Your task to perform on an android device: Show me productivity apps on the Play Store Image 0: 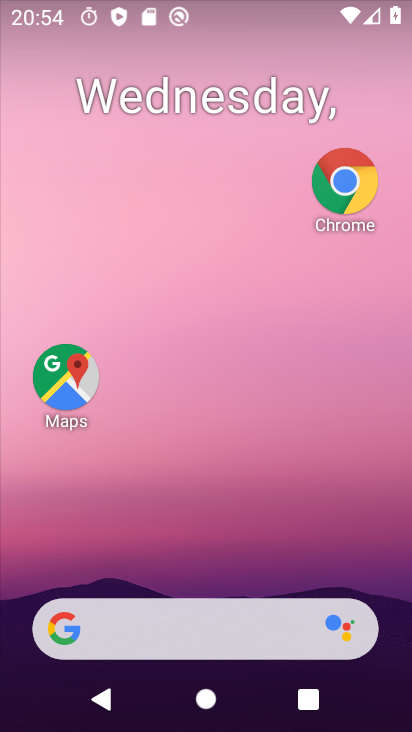
Step 0: drag from (208, 664) to (270, 162)
Your task to perform on an android device: Show me productivity apps on the Play Store Image 1: 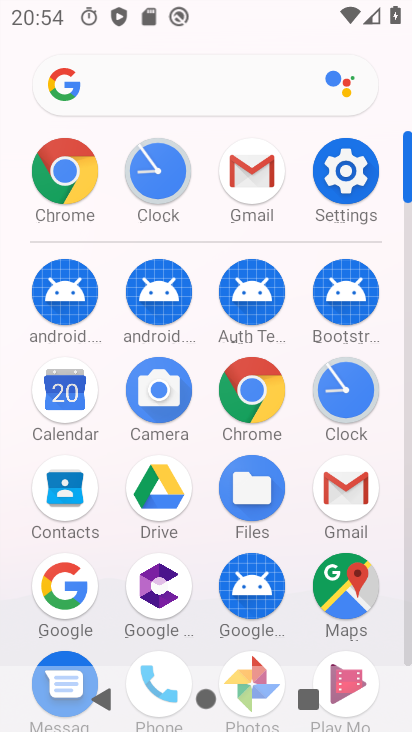
Step 1: drag from (200, 539) to (210, 421)
Your task to perform on an android device: Show me productivity apps on the Play Store Image 2: 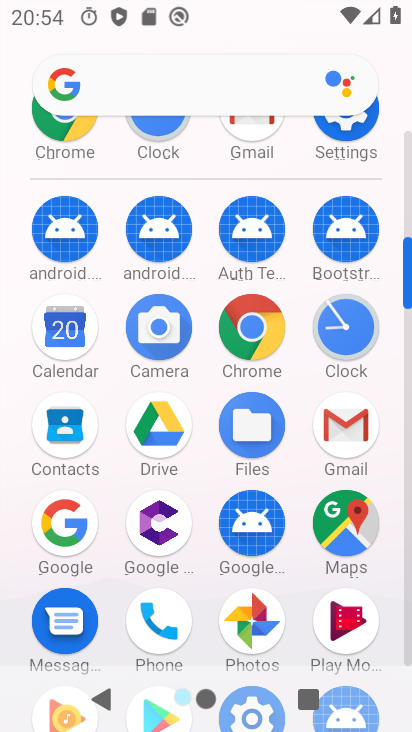
Step 2: drag from (201, 483) to (208, 341)
Your task to perform on an android device: Show me productivity apps on the Play Store Image 3: 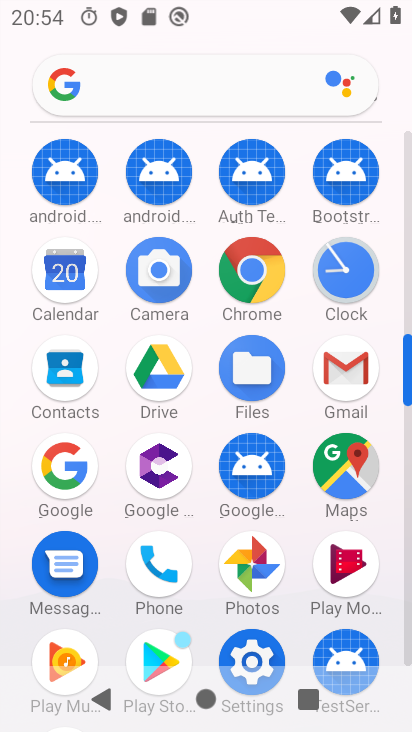
Step 3: click (157, 640)
Your task to perform on an android device: Show me productivity apps on the Play Store Image 4: 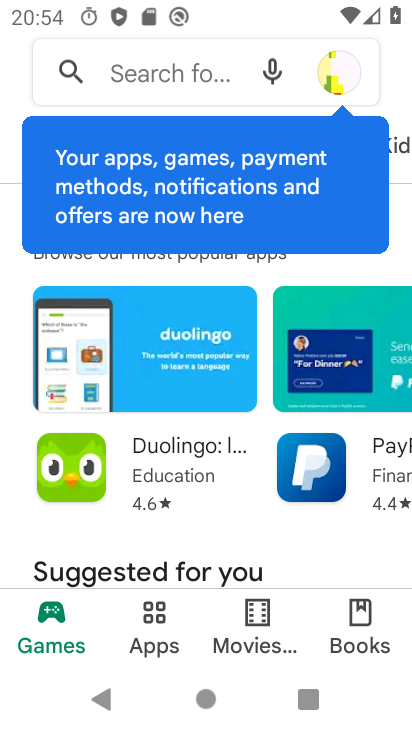
Step 4: click (136, 75)
Your task to perform on an android device: Show me productivity apps on the Play Store Image 5: 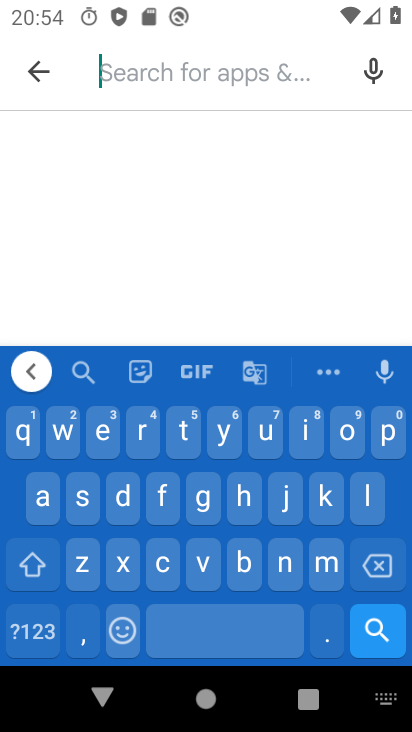
Step 5: click (383, 442)
Your task to perform on an android device: Show me productivity apps on the Play Store Image 6: 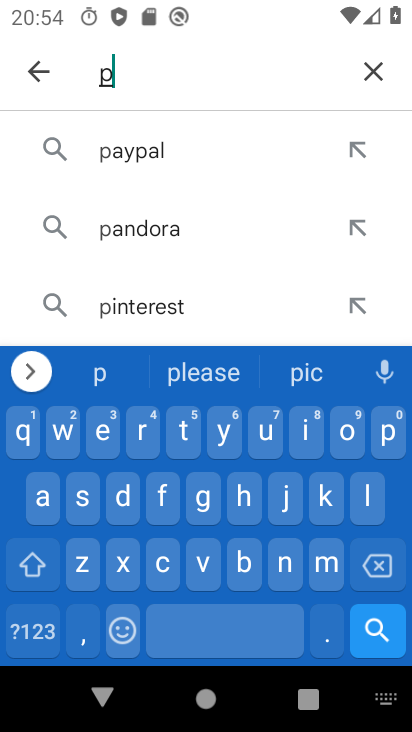
Step 6: click (136, 434)
Your task to perform on an android device: Show me productivity apps on the Play Store Image 7: 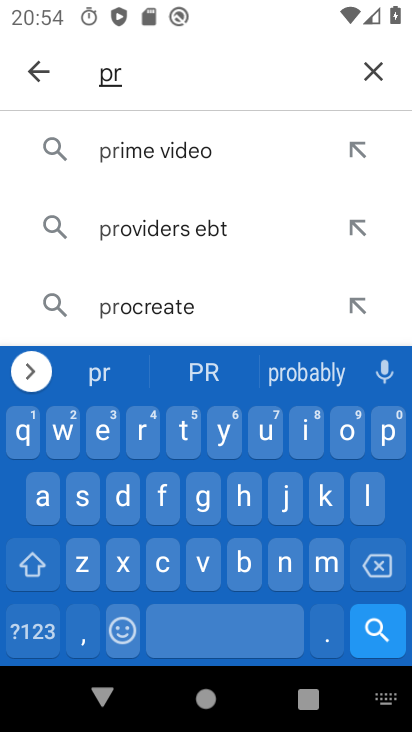
Step 7: click (350, 439)
Your task to perform on an android device: Show me productivity apps on the Play Store Image 8: 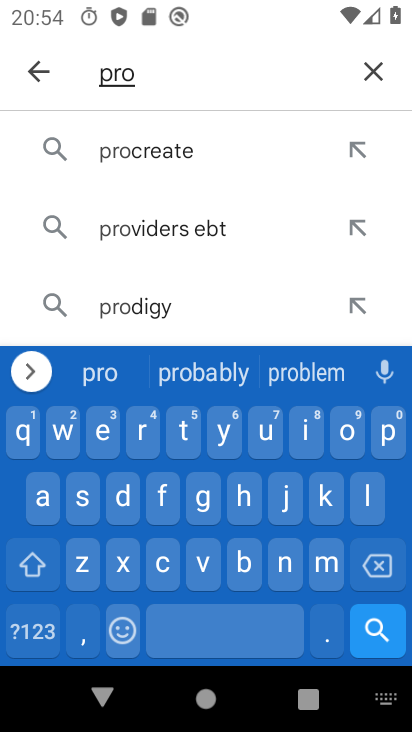
Step 8: click (124, 494)
Your task to perform on an android device: Show me productivity apps on the Play Store Image 9: 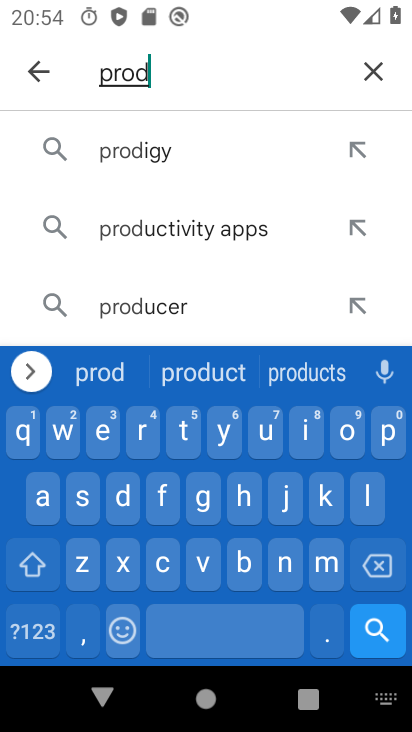
Step 9: click (173, 239)
Your task to perform on an android device: Show me productivity apps on the Play Store Image 10: 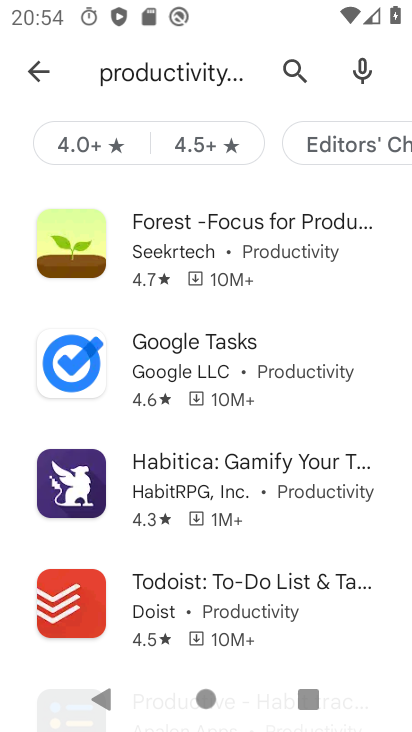
Step 10: task complete